Your task to perform on an android device: How much does a 3 bedroom apartment rent for in Miami? Image 0: 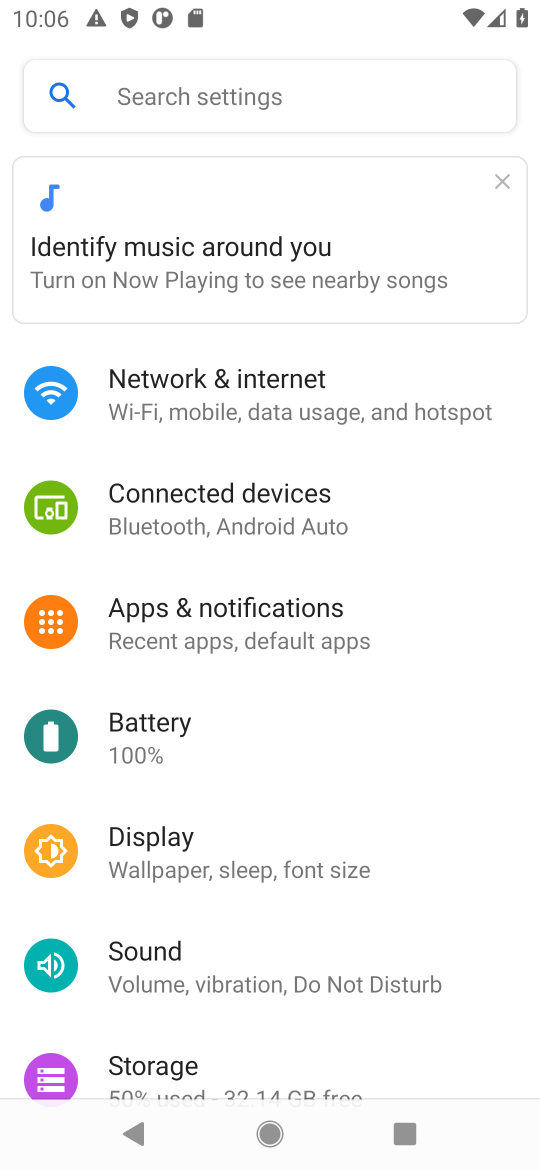
Step 0: press home button
Your task to perform on an android device: How much does a 3 bedroom apartment rent for in Miami? Image 1: 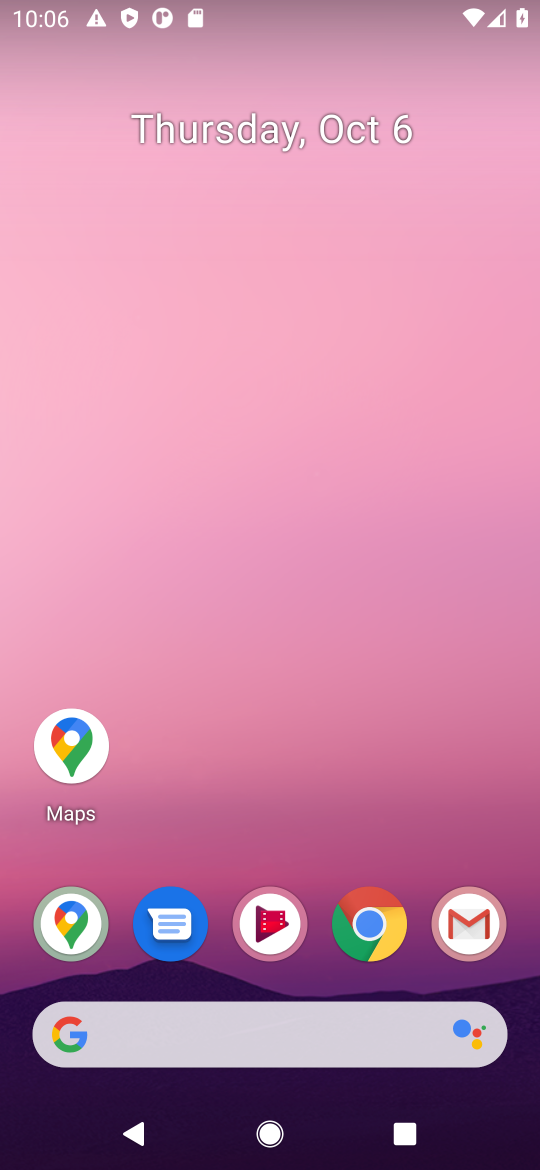
Step 1: click (356, 923)
Your task to perform on an android device: How much does a 3 bedroom apartment rent for in Miami? Image 2: 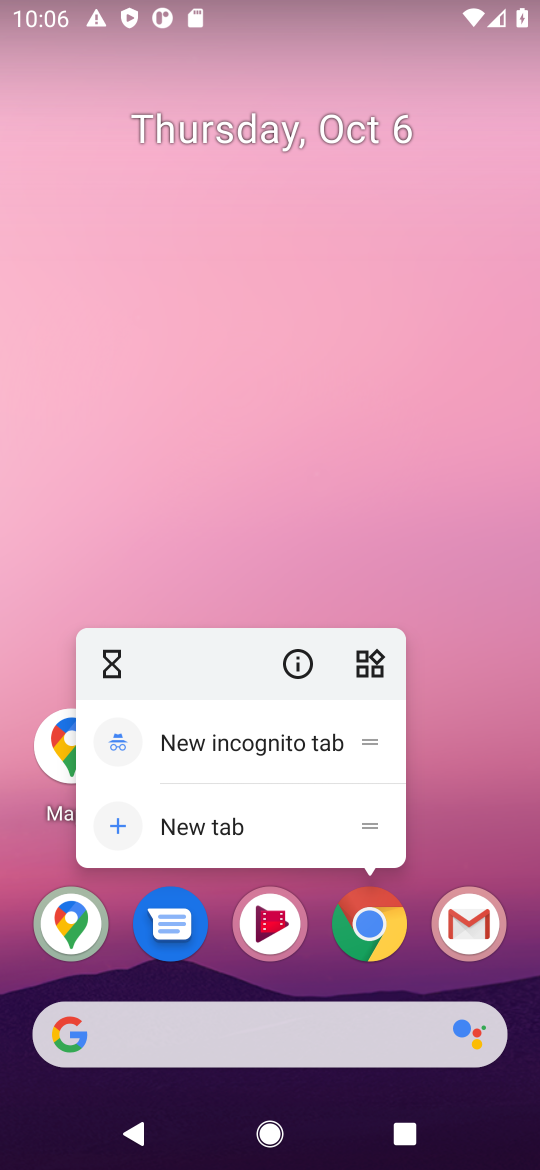
Step 2: click (374, 929)
Your task to perform on an android device: How much does a 3 bedroom apartment rent for in Miami? Image 3: 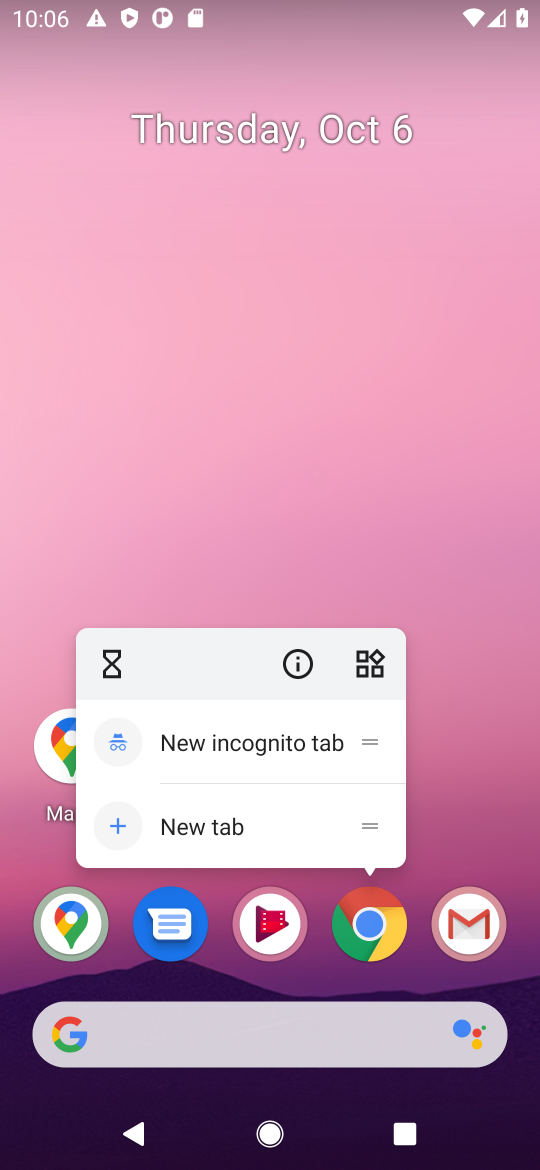
Step 3: click (366, 929)
Your task to perform on an android device: How much does a 3 bedroom apartment rent for in Miami? Image 4: 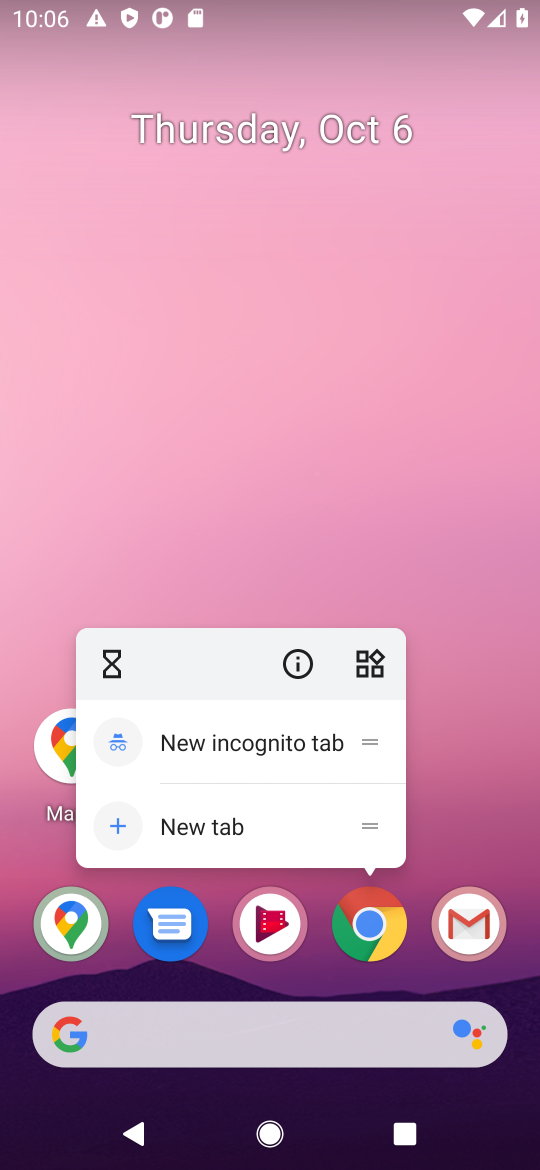
Step 4: click (366, 929)
Your task to perform on an android device: How much does a 3 bedroom apartment rent for in Miami? Image 5: 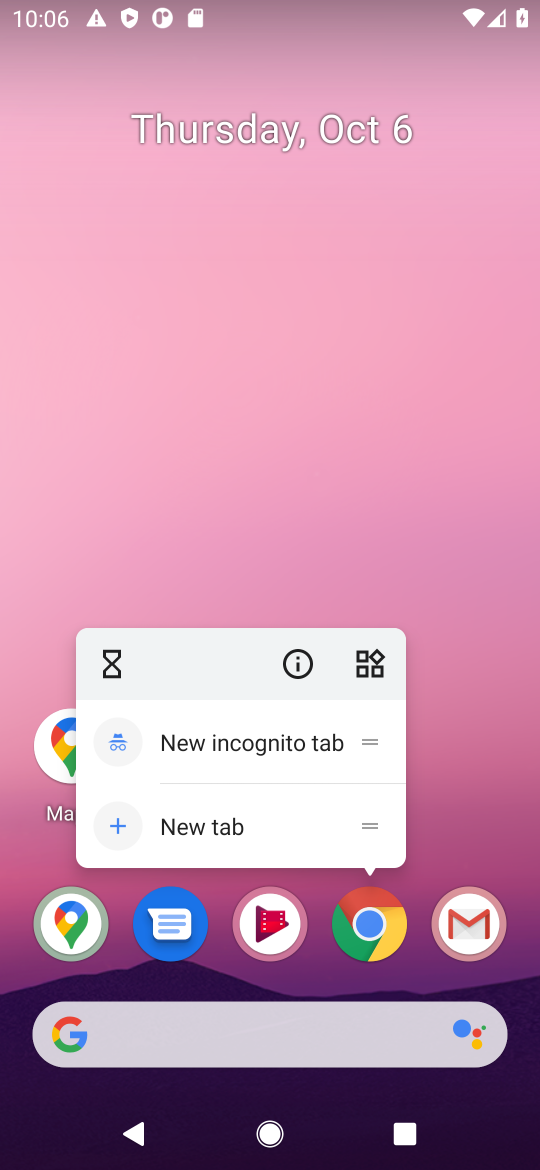
Step 5: click (379, 917)
Your task to perform on an android device: How much does a 3 bedroom apartment rent for in Miami? Image 6: 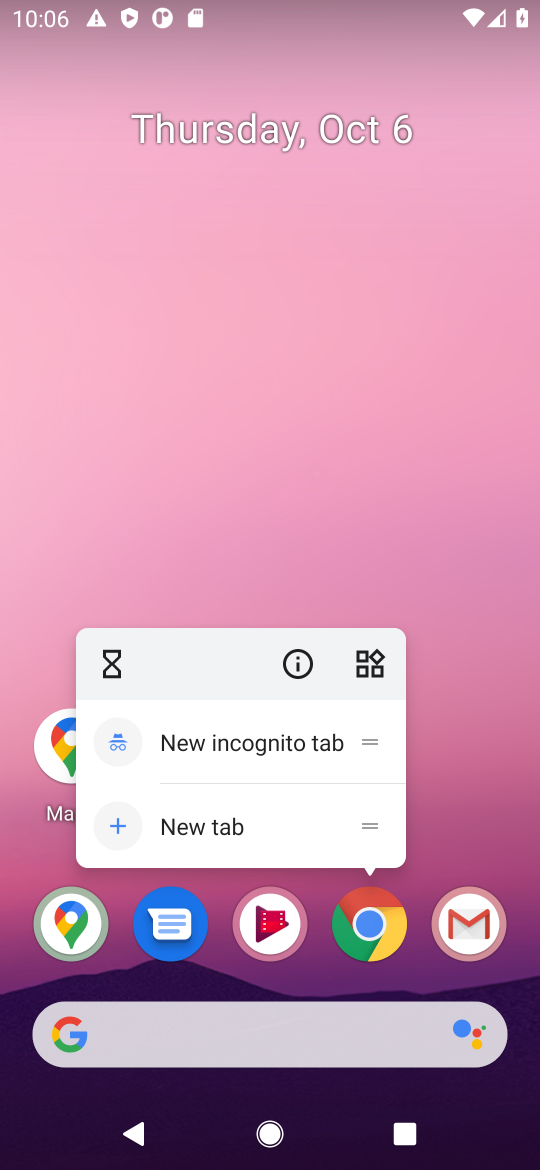
Step 6: click (368, 924)
Your task to perform on an android device: How much does a 3 bedroom apartment rent for in Miami? Image 7: 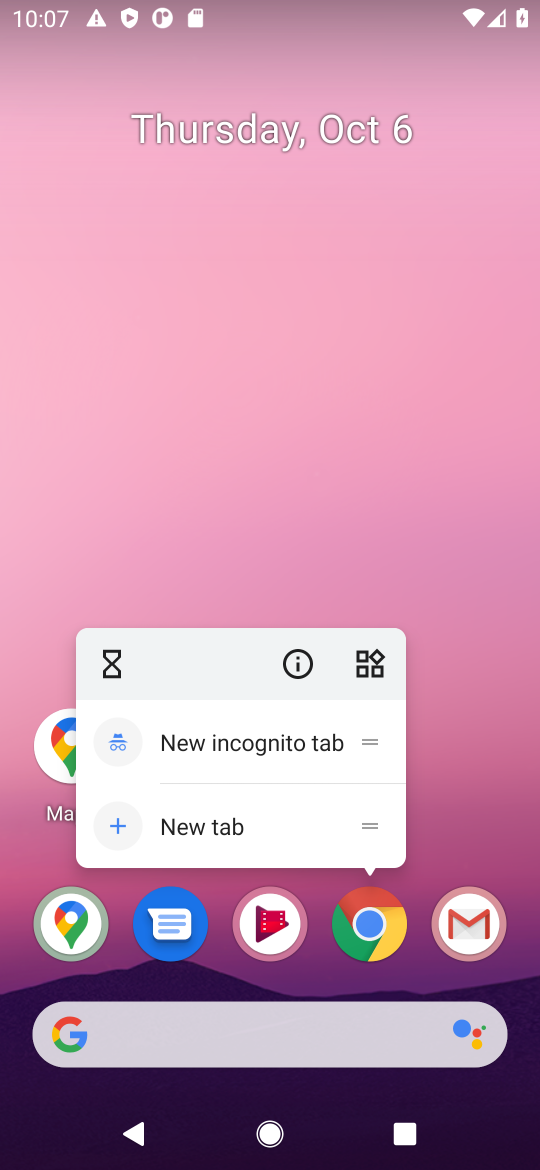
Step 7: click (368, 923)
Your task to perform on an android device: How much does a 3 bedroom apartment rent for in Miami? Image 8: 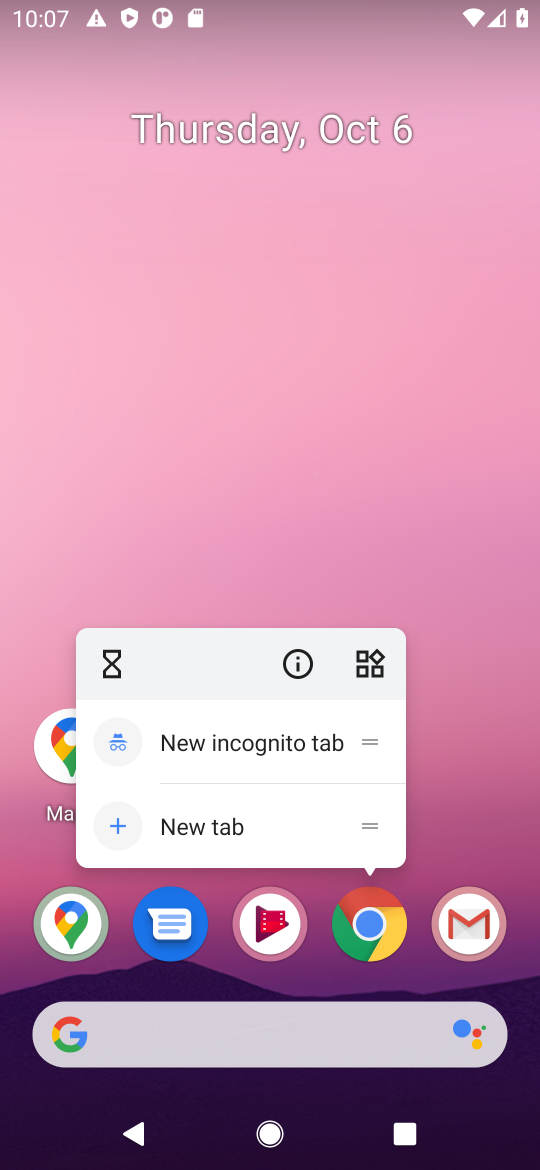
Step 8: click (370, 918)
Your task to perform on an android device: How much does a 3 bedroom apartment rent for in Miami? Image 9: 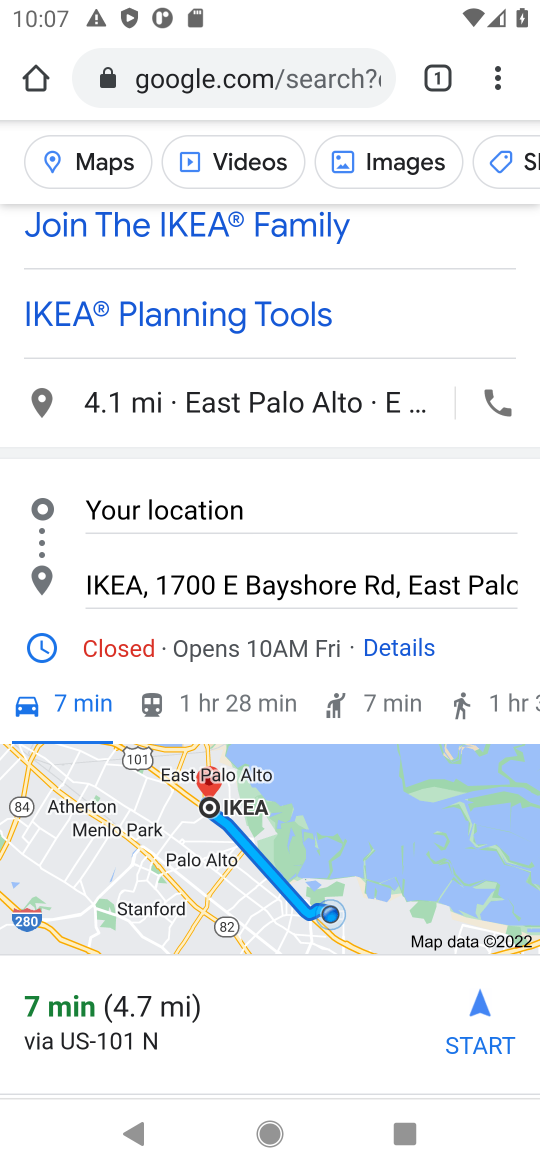
Step 9: click (339, 71)
Your task to perform on an android device: How much does a 3 bedroom apartment rent for in Miami? Image 10: 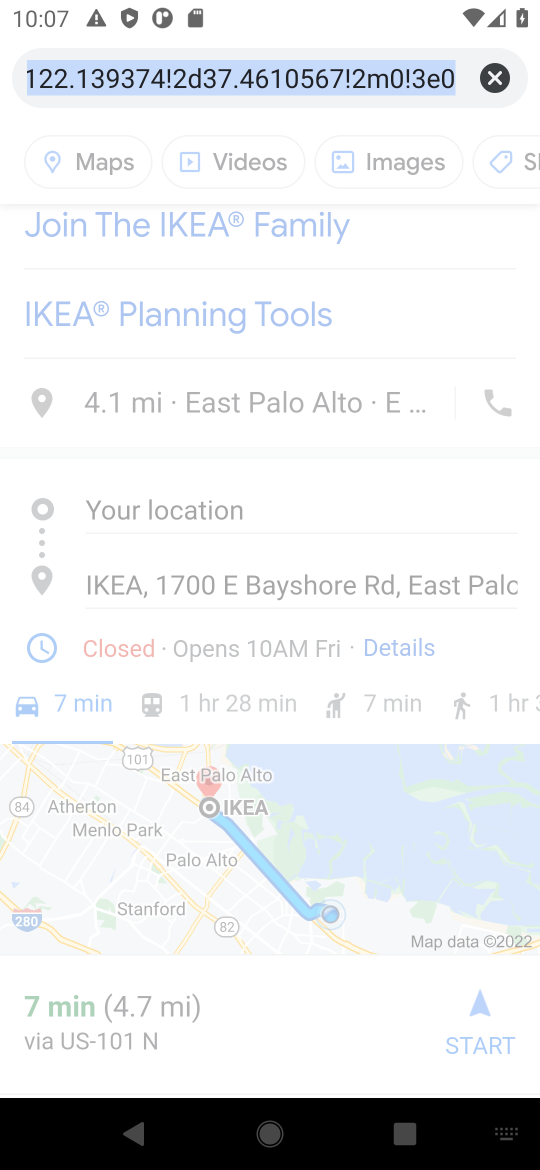
Step 10: click (490, 74)
Your task to perform on an android device: How much does a 3 bedroom apartment rent for in Miami? Image 11: 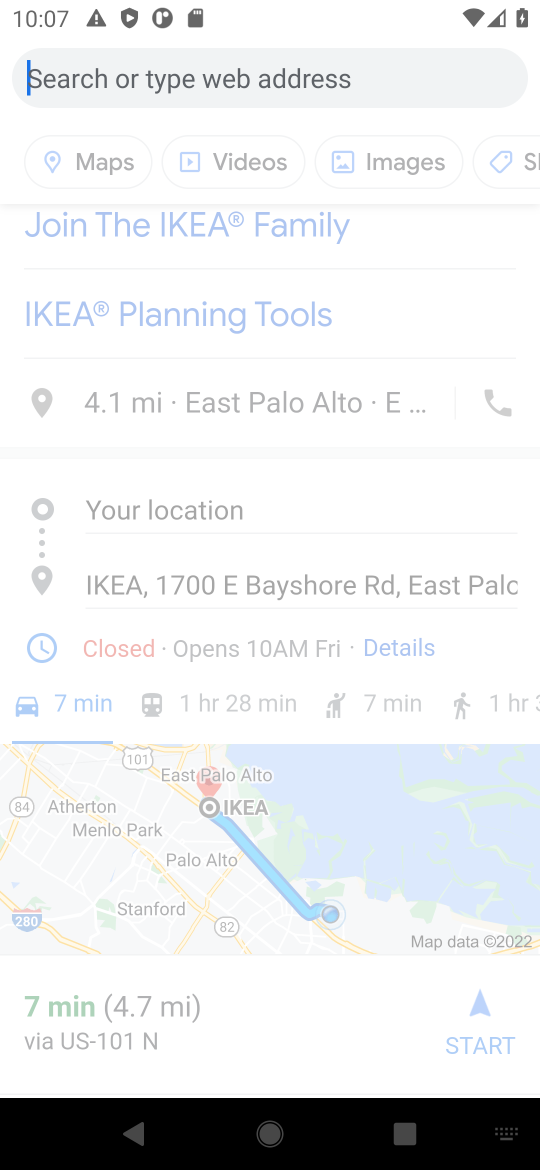
Step 11: click (360, 61)
Your task to perform on an android device: How much does a 3 bedroom apartment rent for in Miami? Image 12: 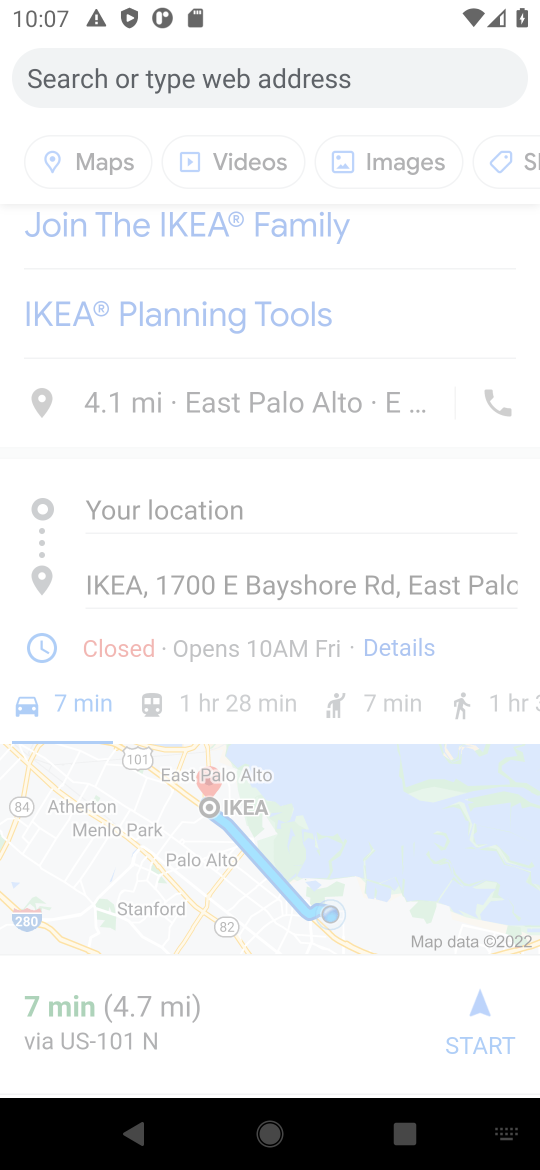
Step 12: type "3 bedroom apartment rent for in Miami"
Your task to perform on an android device: How much does a 3 bedroom apartment rent for in Miami? Image 13: 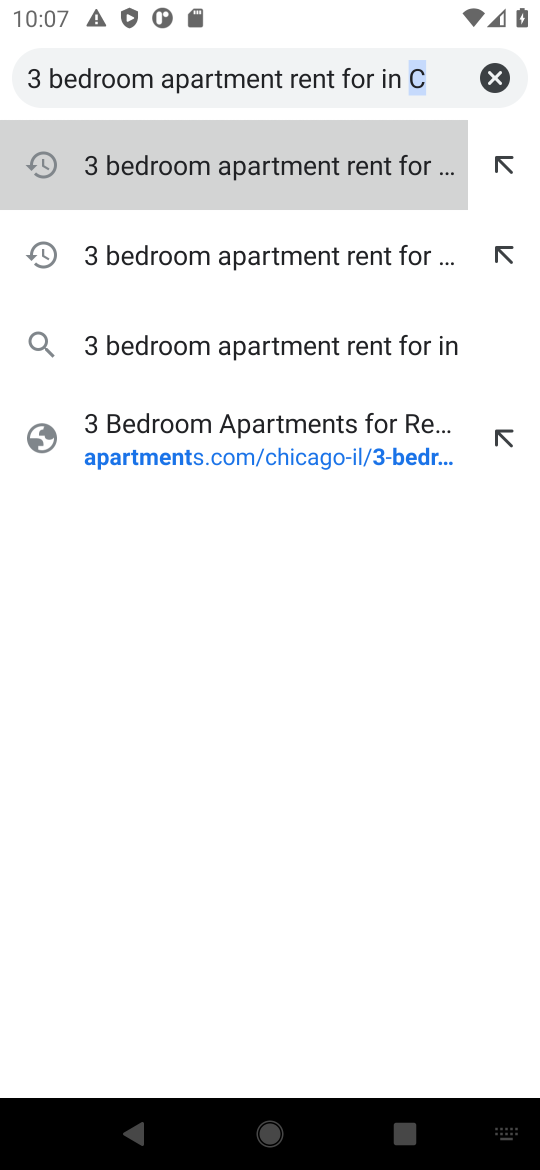
Step 13: click (429, 60)
Your task to perform on an android device: How much does a 3 bedroom apartment rent for in Miami? Image 14: 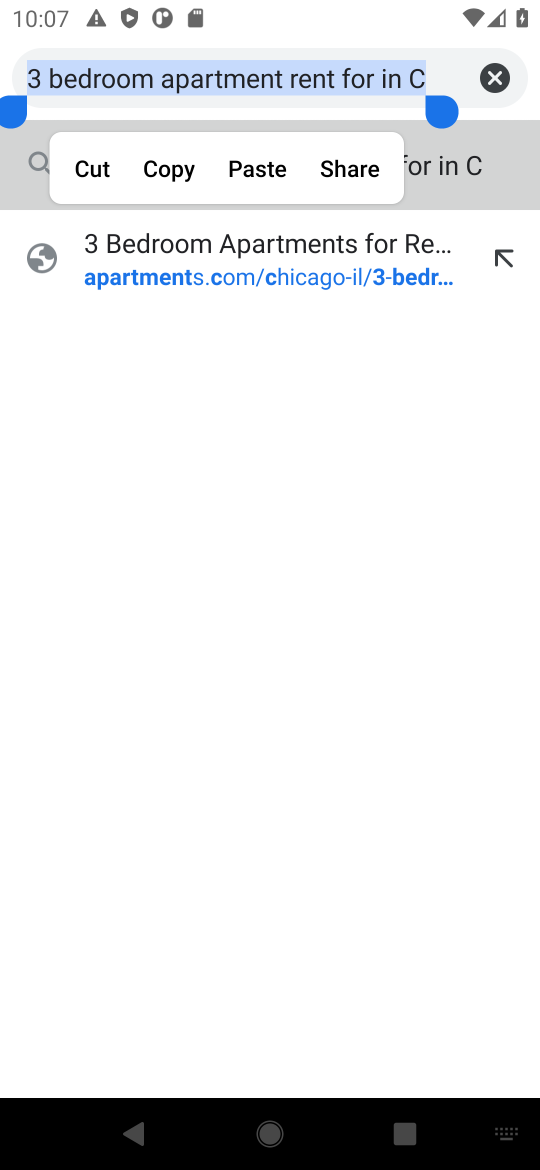
Step 14: click (435, 65)
Your task to perform on an android device: How much does a 3 bedroom apartment rent for in Miami? Image 15: 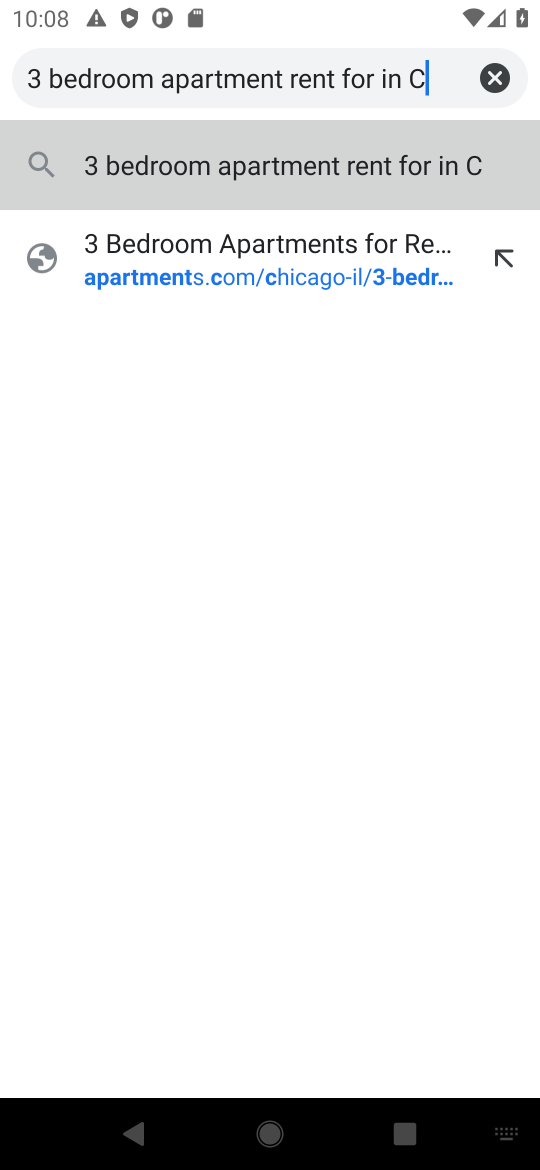
Step 15: type "miami"
Your task to perform on an android device: How much does a 3 bedroom apartment rent for in Miami? Image 16: 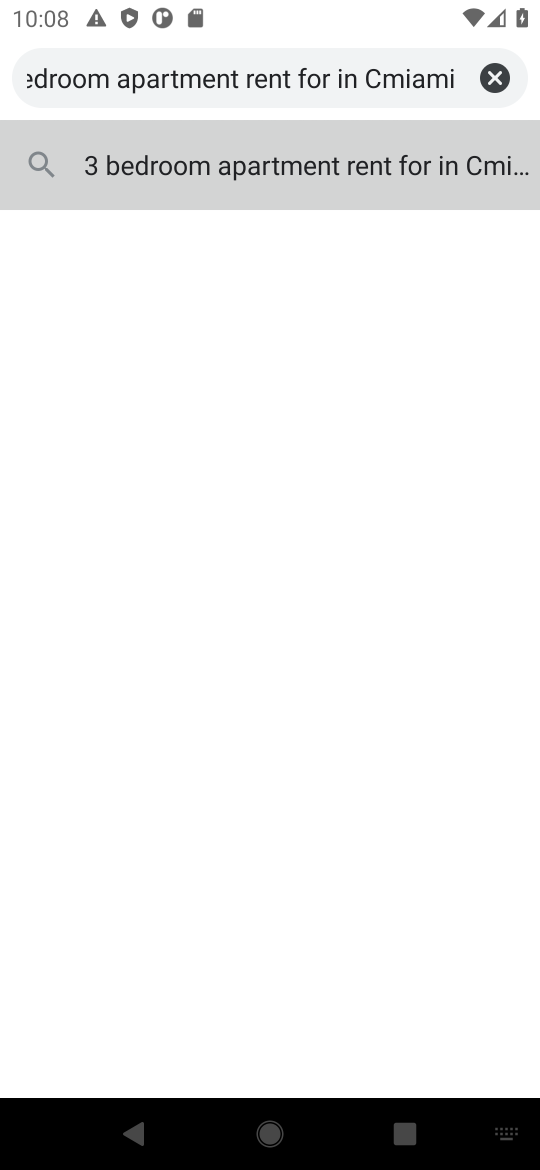
Step 16: click (378, 68)
Your task to perform on an android device: How much does a 3 bedroom apartment rent for in Miami? Image 17: 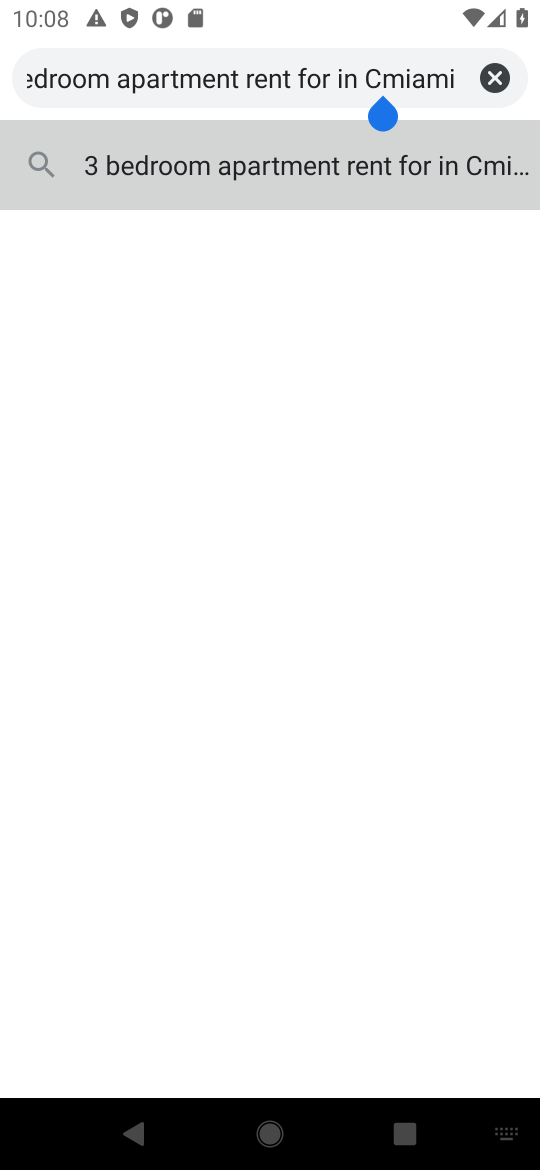
Step 17: click (390, 176)
Your task to perform on an android device: How much does a 3 bedroom apartment rent for in Miami? Image 18: 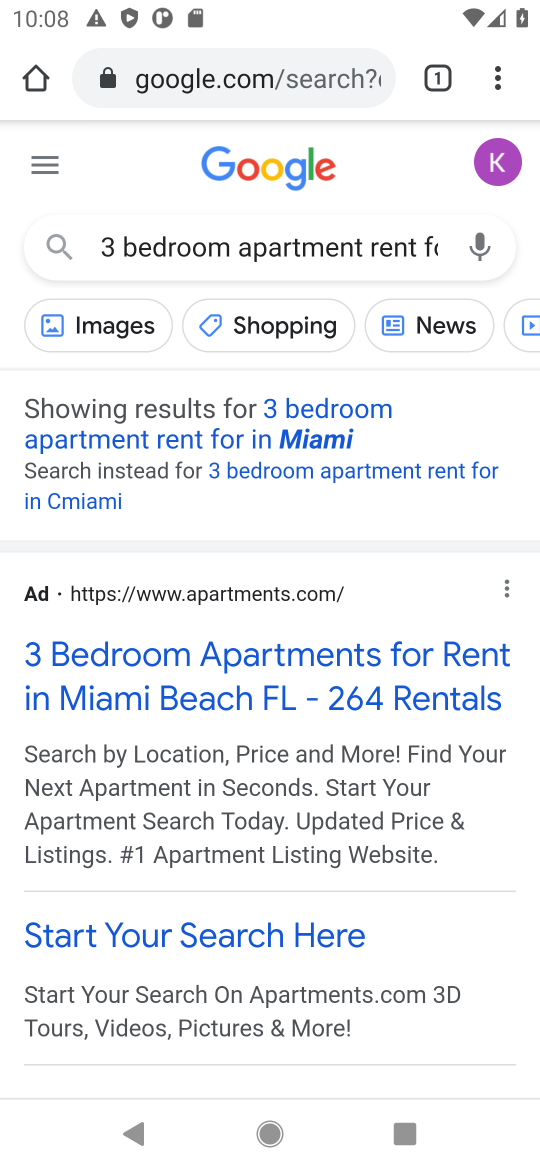
Step 18: click (273, 427)
Your task to perform on an android device: How much does a 3 bedroom apartment rent for in Miami? Image 19: 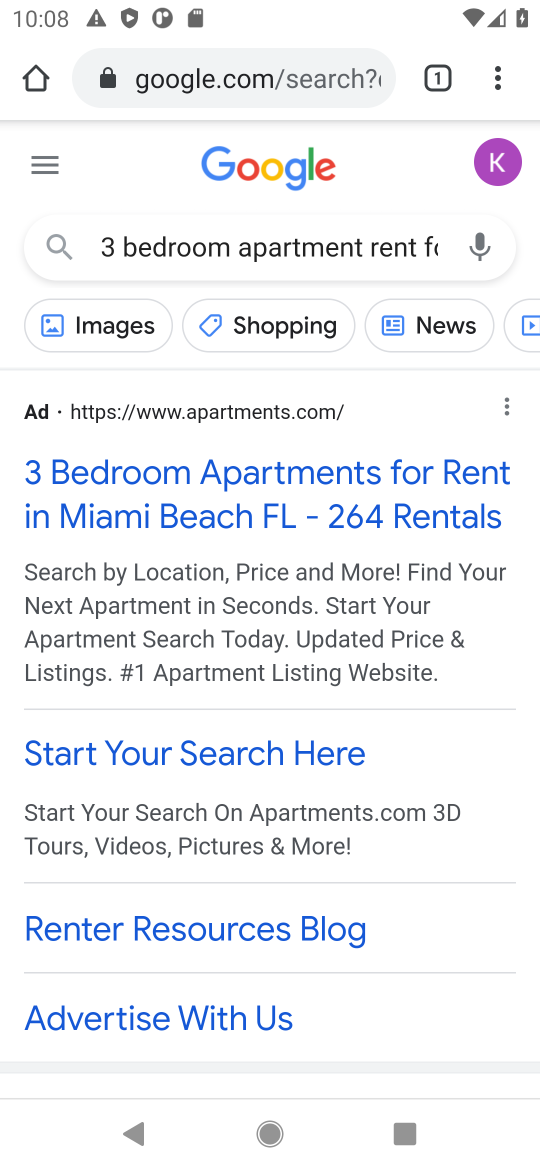
Step 19: click (252, 467)
Your task to perform on an android device: How much does a 3 bedroom apartment rent for in Miami? Image 20: 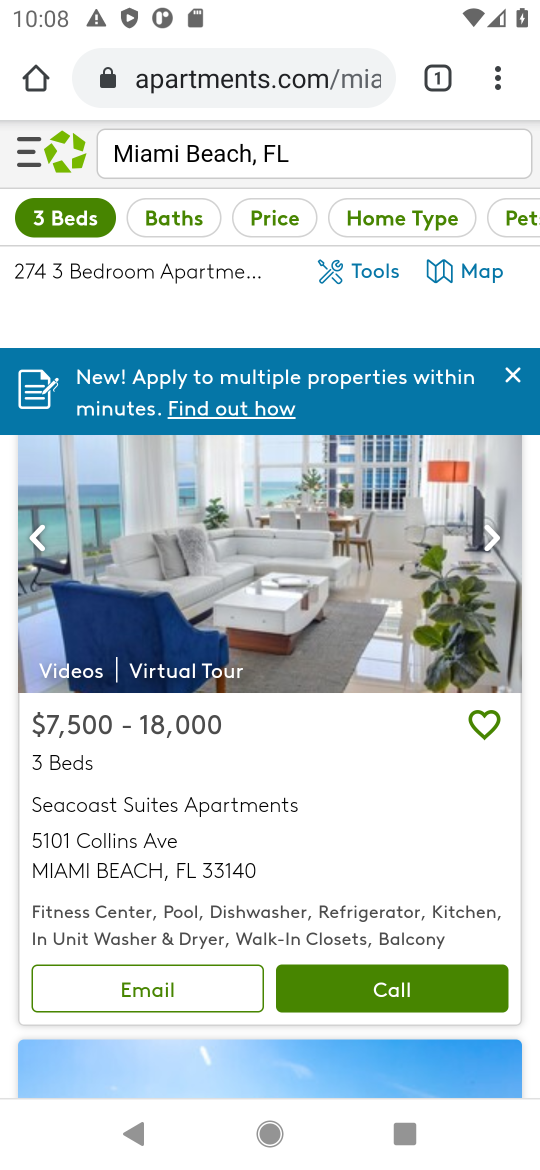
Step 20: task complete